Your task to perform on an android device: turn on the 12-hour format for clock Image 0: 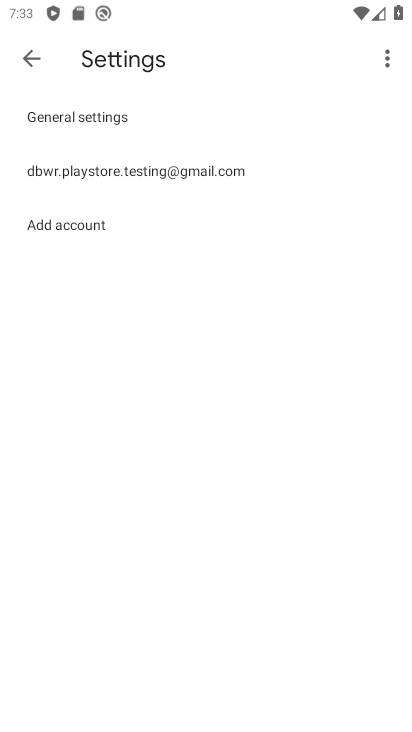
Step 0: press home button
Your task to perform on an android device: turn on the 12-hour format for clock Image 1: 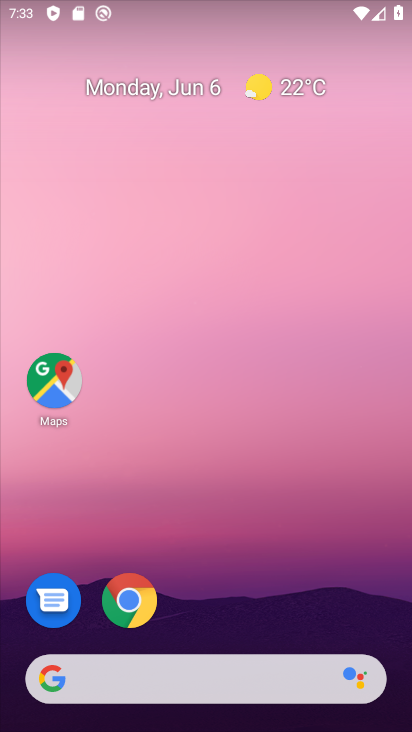
Step 1: drag from (263, 586) to (224, 88)
Your task to perform on an android device: turn on the 12-hour format for clock Image 2: 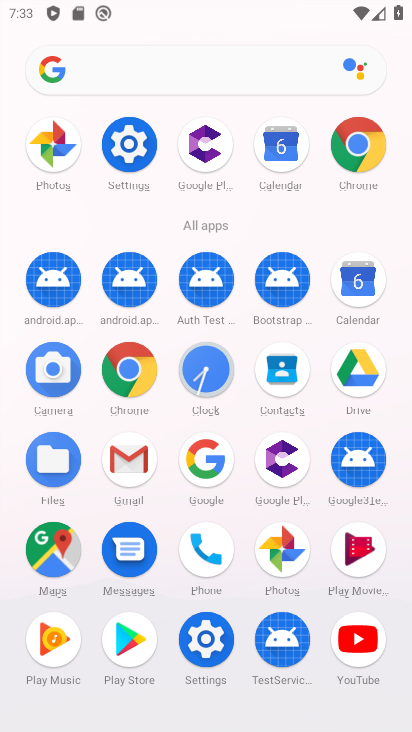
Step 2: click (206, 367)
Your task to perform on an android device: turn on the 12-hour format for clock Image 3: 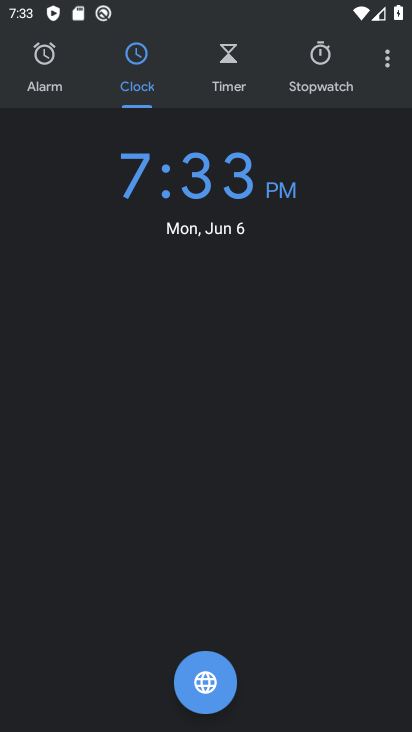
Step 3: click (386, 62)
Your task to perform on an android device: turn on the 12-hour format for clock Image 4: 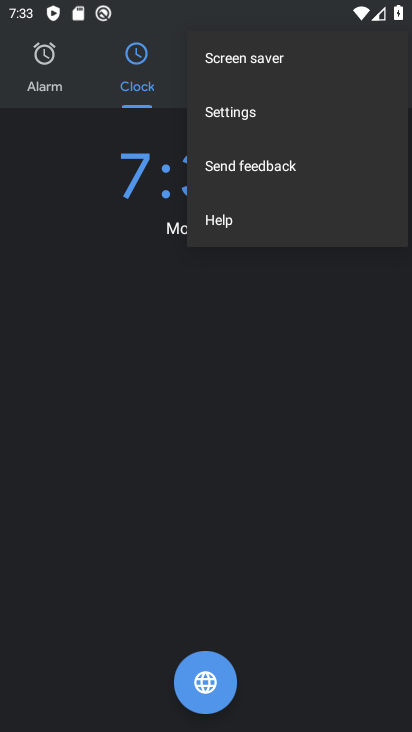
Step 4: click (246, 110)
Your task to perform on an android device: turn on the 12-hour format for clock Image 5: 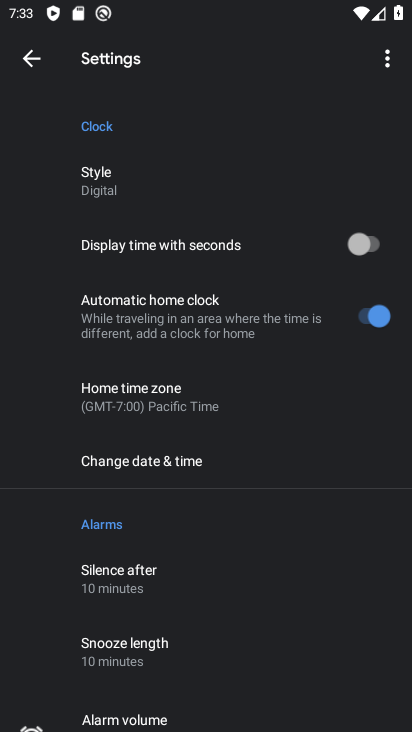
Step 5: click (153, 456)
Your task to perform on an android device: turn on the 12-hour format for clock Image 6: 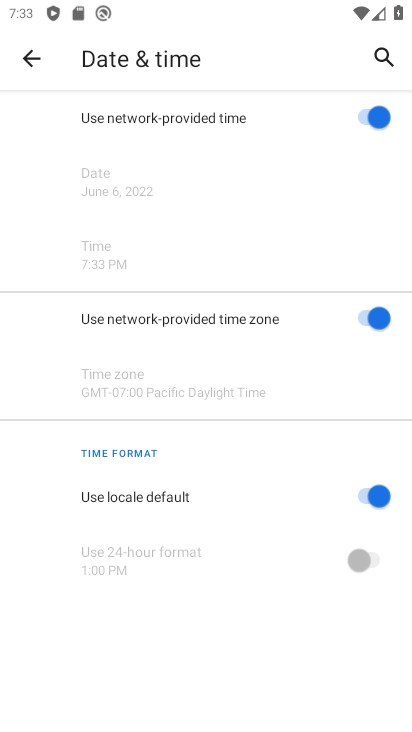
Step 6: task complete